Your task to perform on an android device: Open the map Image 0: 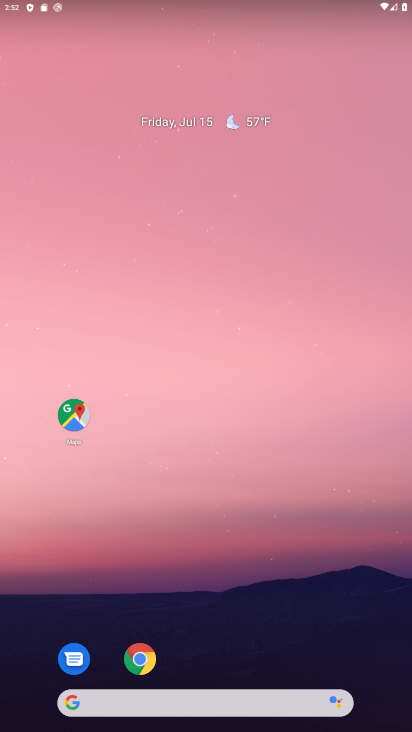
Step 0: click (68, 422)
Your task to perform on an android device: Open the map Image 1: 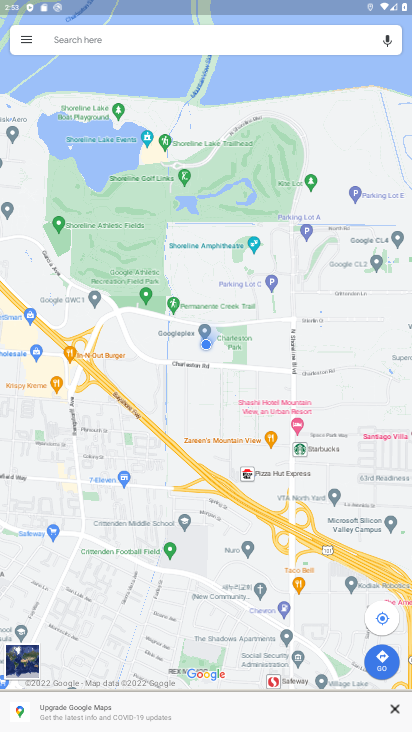
Step 1: task complete